Your task to perform on an android device: set the timer Image 0: 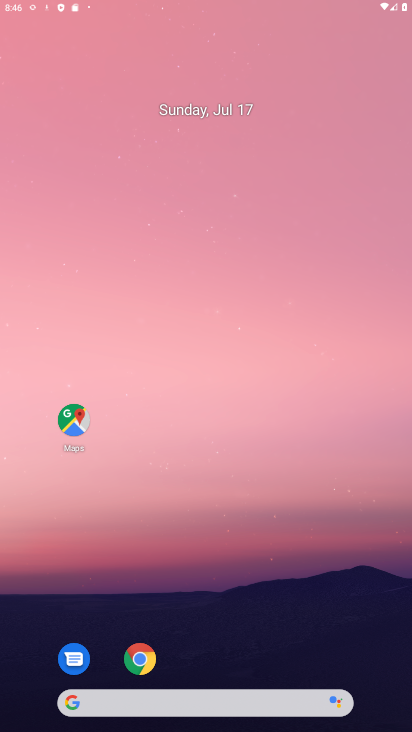
Step 0: press home button
Your task to perform on an android device: set the timer Image 1: 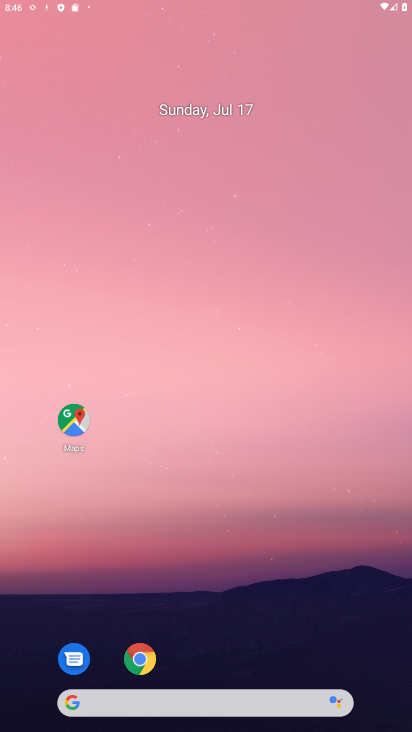
Step 1: drag from (214, 616) to (141, 194)
Your task to perform on an android device: set the timer Image 2: 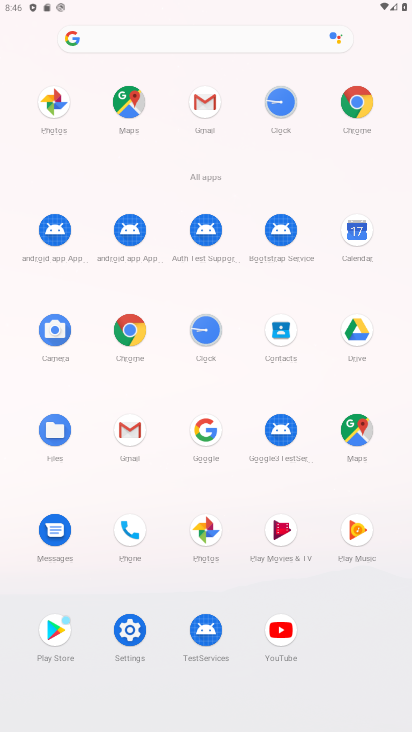
Step 2: click (269, 107)
Your task to perform on an android device: set the timer Image 3: 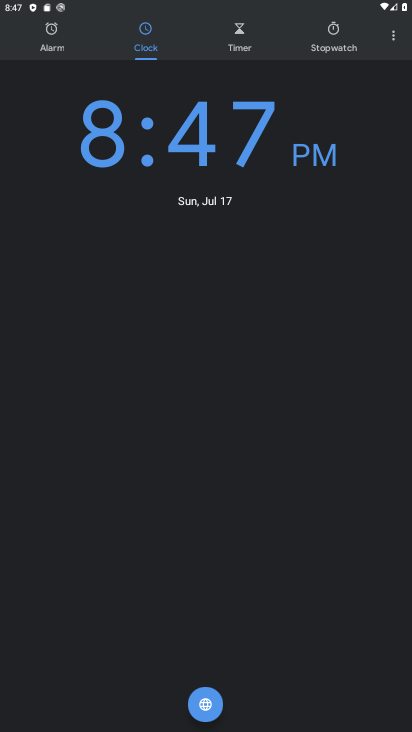
Step 3: click (235, 29)
Your task to perform on an android device: set the timer Image 4: 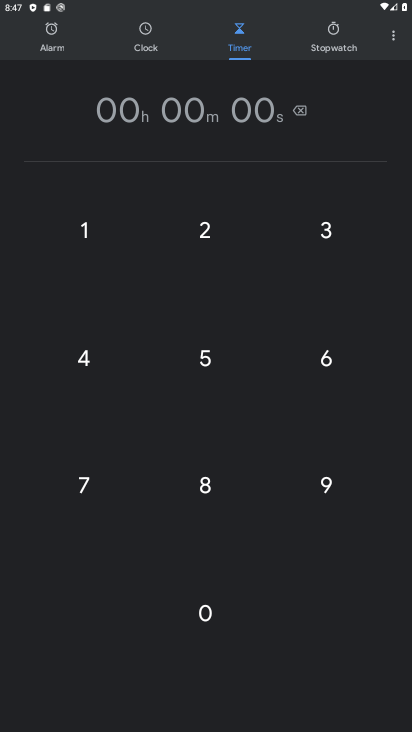
Step 4: click (86, 225)
Your task to perform on an android device: set the timer Image 5: 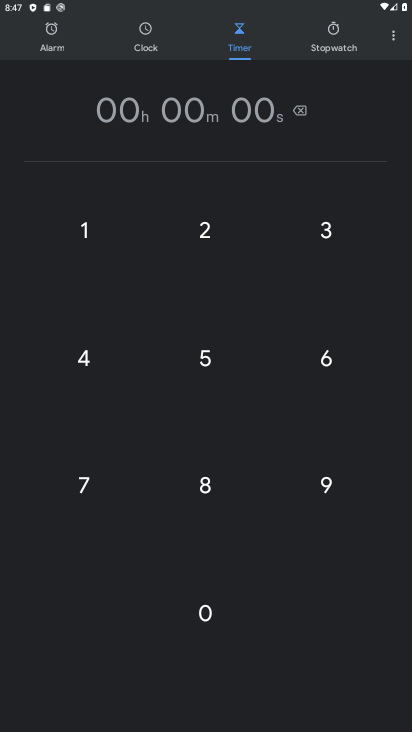
Step 5: click (86, 225)
Your task to perform on an android device: set the timer Image 6: 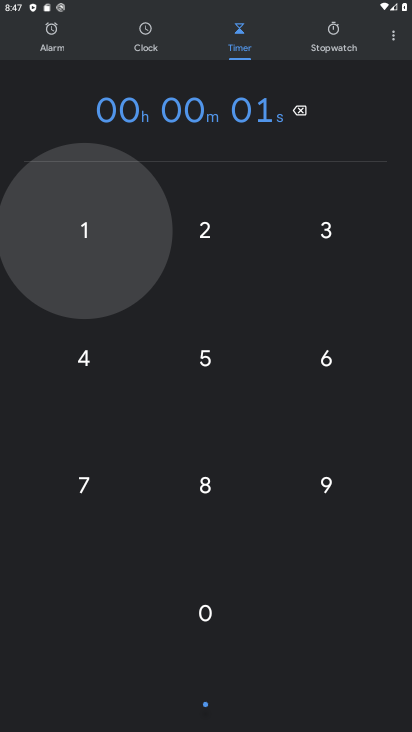
Step 6: click (86, 225)
Your task to perform on an android device: set the timer Image 7: 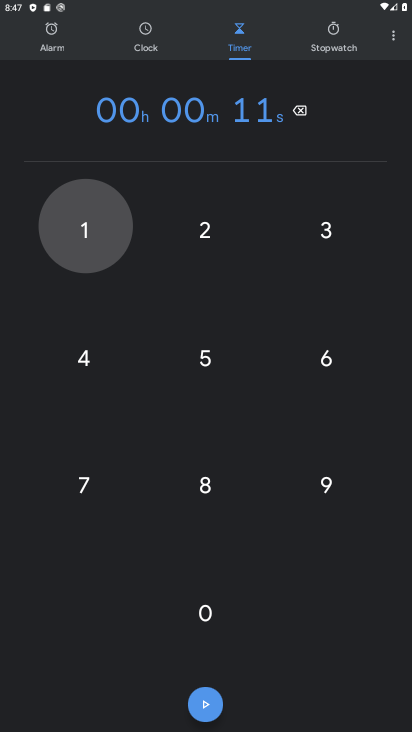
Step 7: click (86, 225)
Your task to perform on an android device: set the timer Image 8: 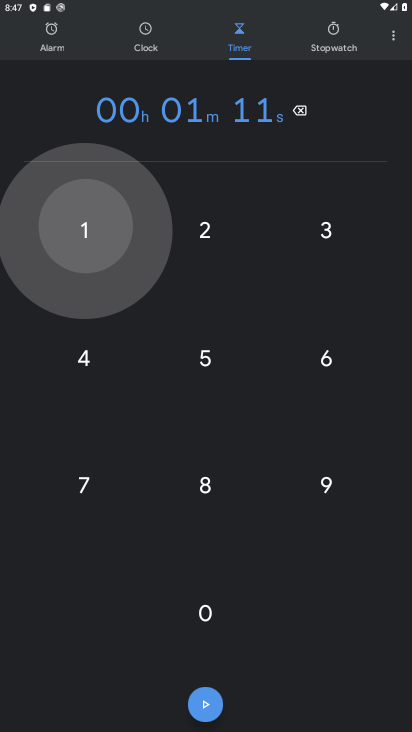
Step 8: click (86, 225)
Your task to perform on an android device: set the timer Image 9: 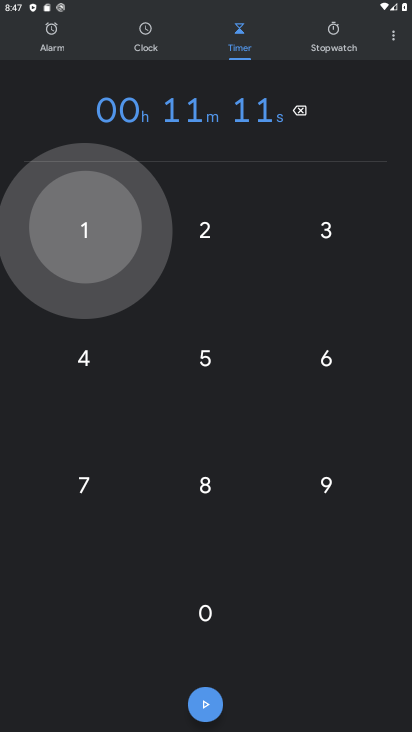
Step 9: click (86, 225)
Your task to perform on an android device: set the timer Image 10: 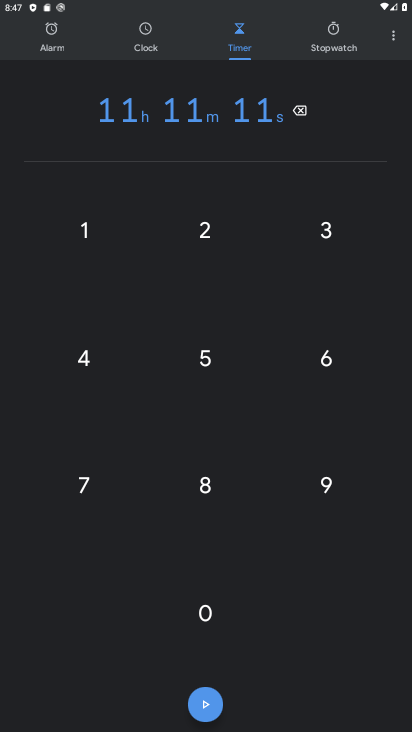
Step 10: task complete